Your task to perform on an android device: turn off improve location accuracy Image 0: 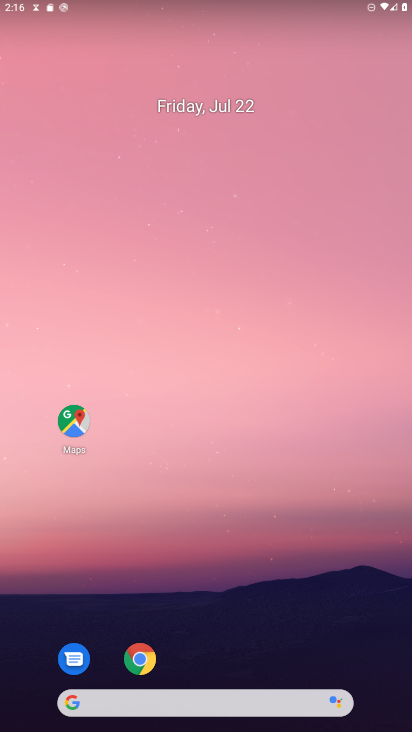
Step 0: drag from (296, 471) to (217, 28)
Your task to perform on an android device: turn off improve location accuracy Image 1: 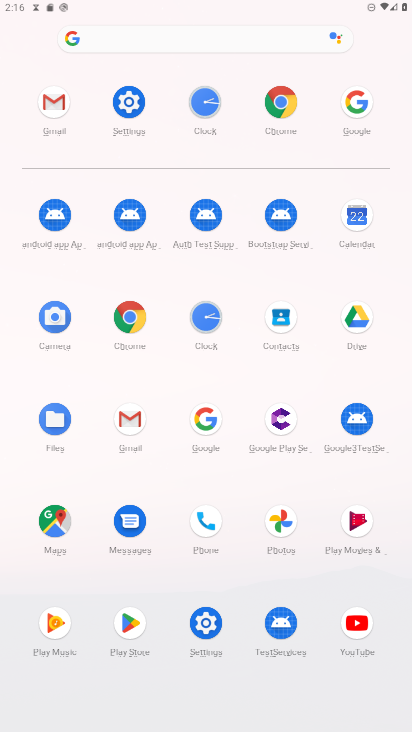
Step 1: click (129, 112)
Your task to perform on an android device: turn off improve location accuracy Image 2: 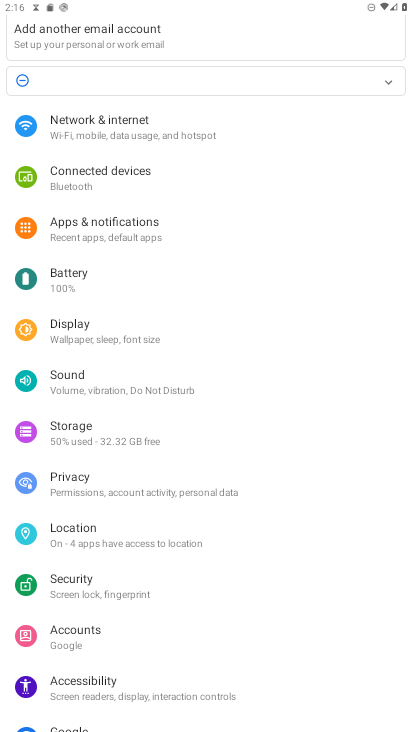
Step 2: click (128, 536)
Your task to perform on an android device: turn off improve location accuracy Image 3: 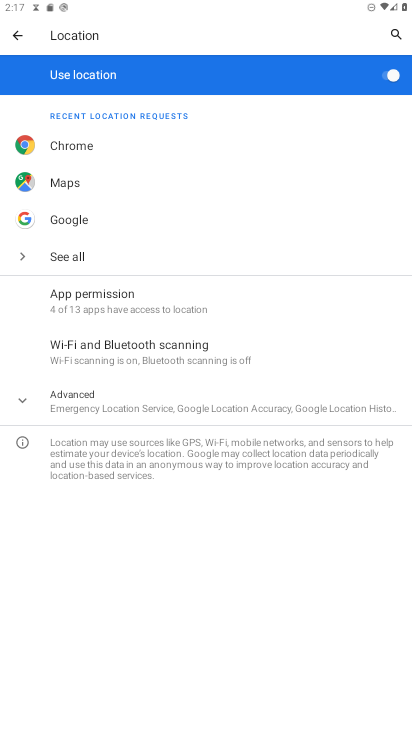
Step 3: click (65, 400)
Your task to perform on an android device: turn off improve location accuracy Image 4: 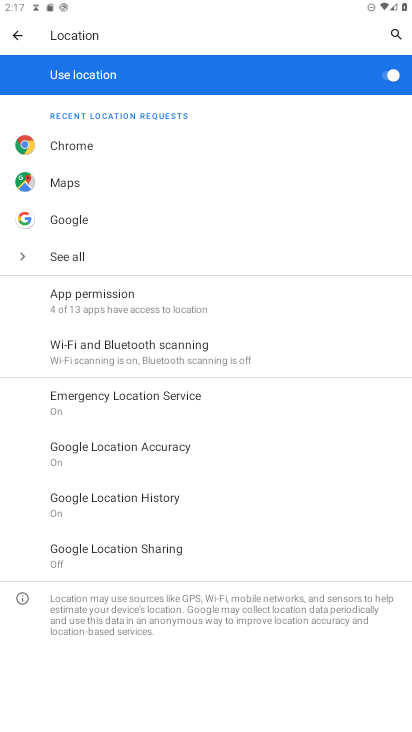
Step 4: click (170, 449)
Your task to perform on an android device: turn off improve location accuracy Image 5: 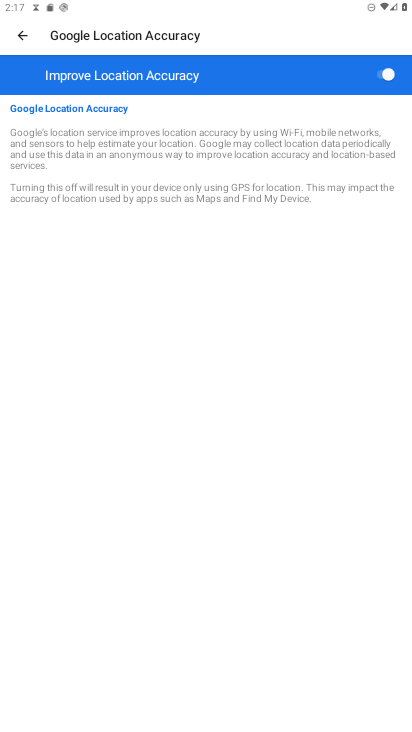
Step 5: click (385, 78)
Your task to perform on an android device: turn off improve location accuracy Image 6: 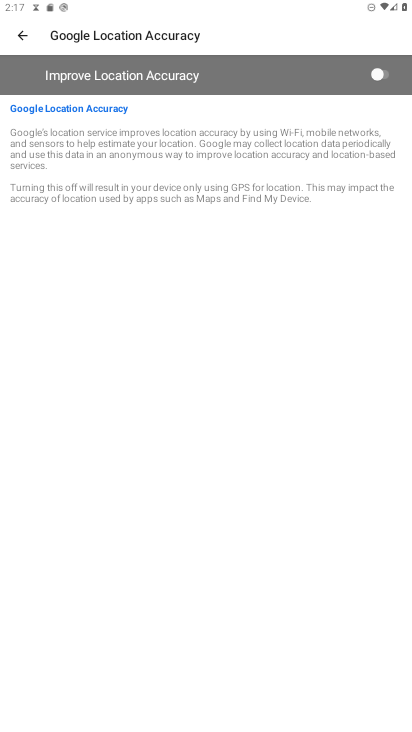
Step 6: task complete